Your task to perform on an android device: Open eBay Image 0: 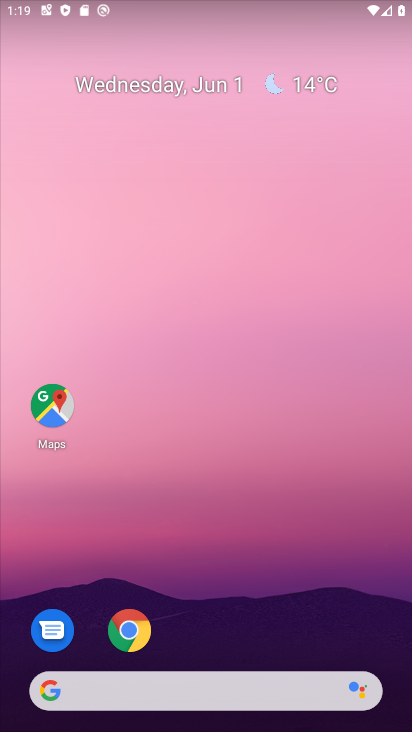
Step 0: press home button
Your task to perform on an android device: Open eBay Image 1: 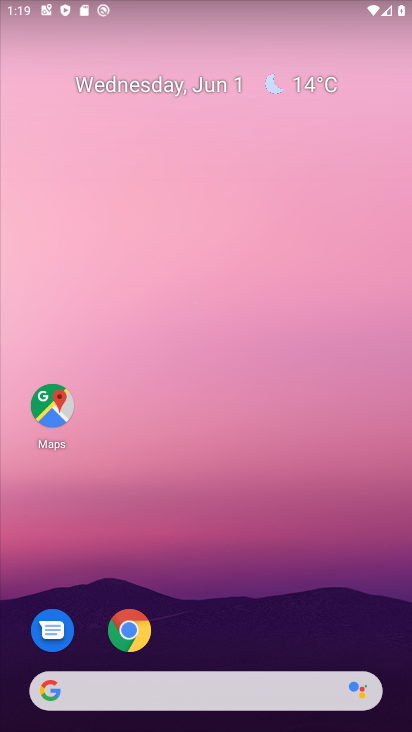
Step 1: click (126, 620)
Your task to perform on an android device: Open eBay Image 2: 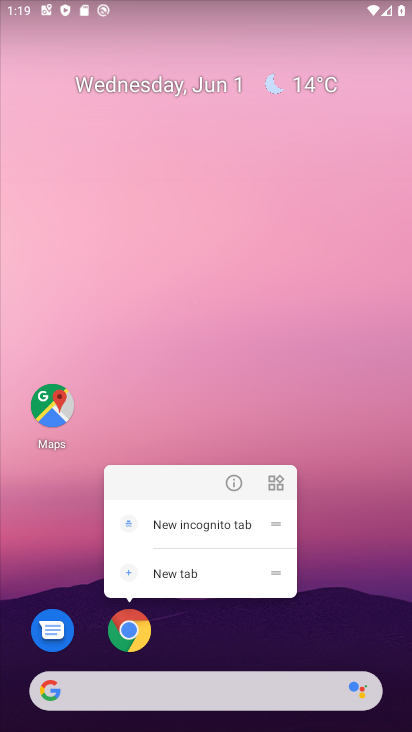
Step 2: click (127, 624)
Your task to perform on an android device: Open eBay Image 3: 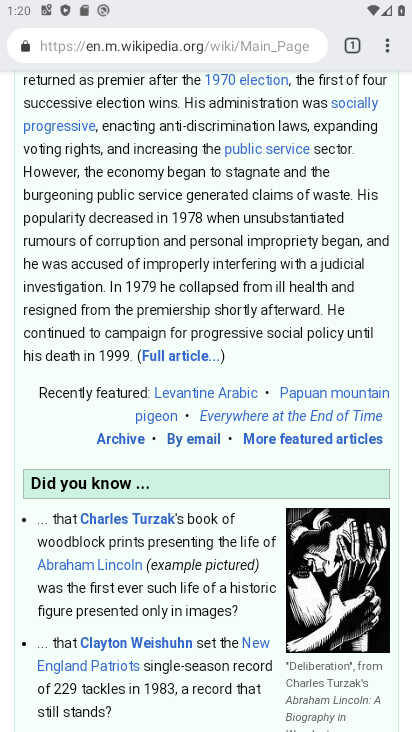
Step 3: click (354, 35)
Your task to perform on an android device: Open eBay Image 4: 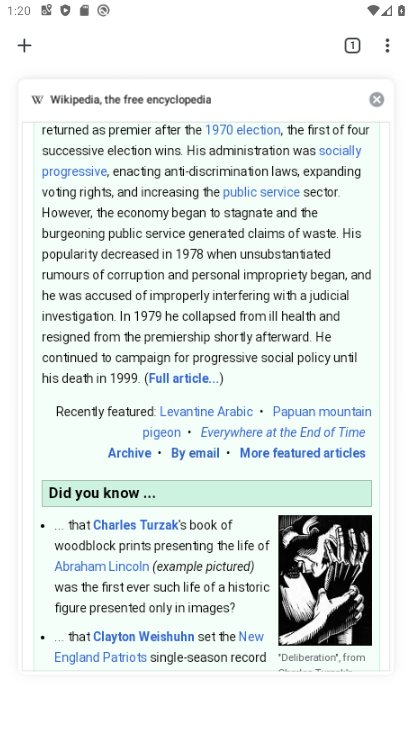
Step 4: click (376, 95)
Your task to perform on an android device: Open eBay Image 5: 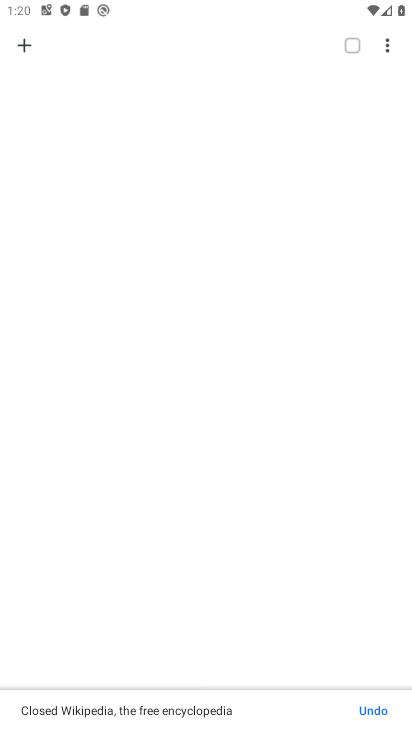
Step 5: click (28, 44)
Your task to perform on an android device: Open eBay Image 6: 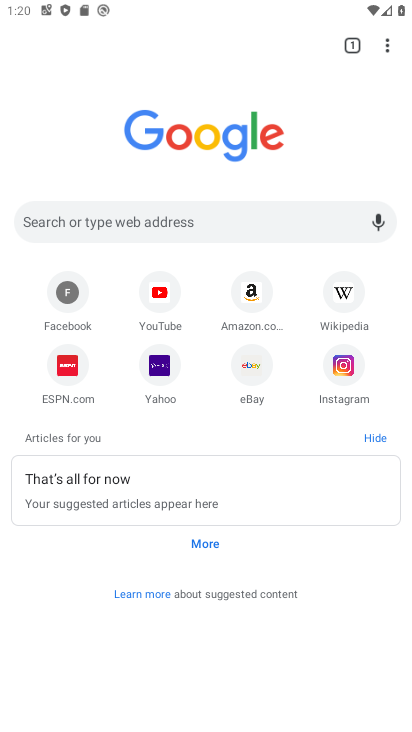
Step 6: click (251, 358)
Your task to perform on an android device: Open eBay Image 7: 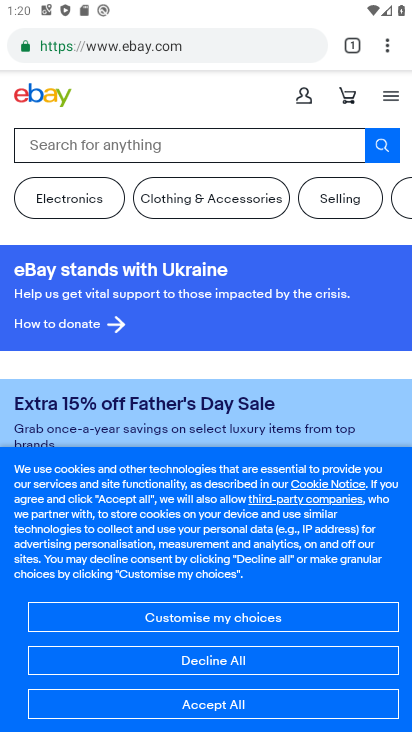
Step 7: click (222, 704)
Your task to perform on an android device: Open eBay Image 8: 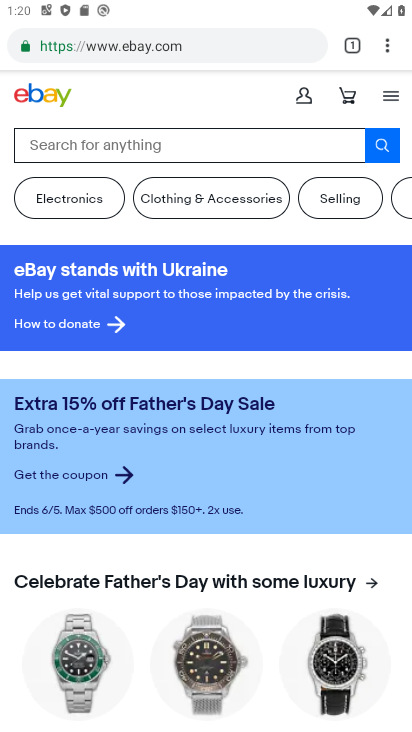
Step 8: task complete